Your task to perform on an android device: refresh tabs in the chrome app Image 0: 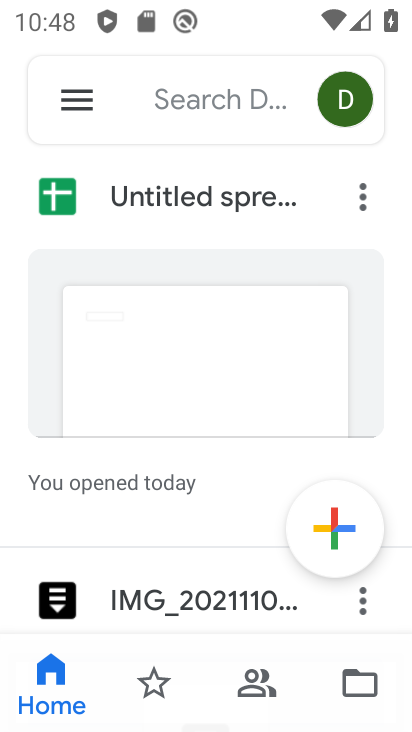
Step 0: press home button
Your task to perform on an android device: refresh tabs in the chrome app Image 1: 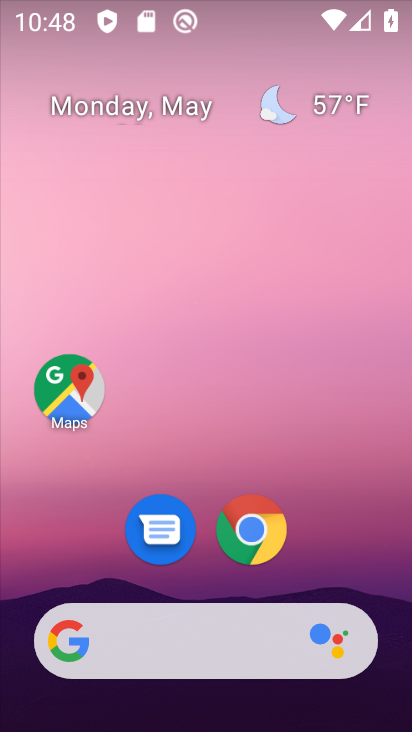
Step 1: click (260, 530)
Your task to perform on an android device: refresh tabs in the chrome app Image 2: 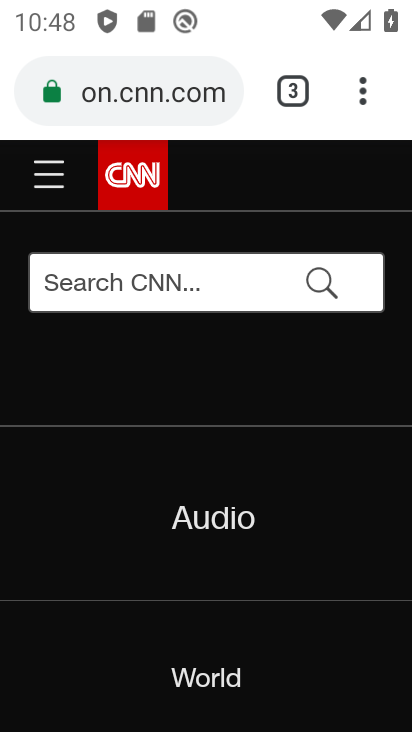
Step 2: click (360, 96)
Your task to perform on an android device: refresh tabs in the chrome app Image 3: 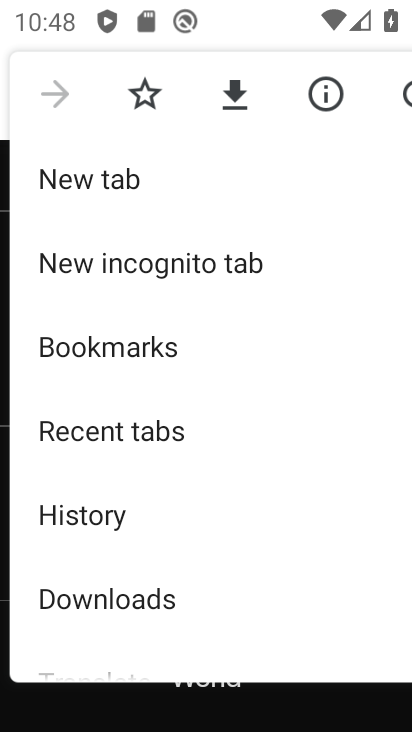
Step 3: click (405, 95)
Your task to perform on an android device: refresh tabs in the chrome app Image 4: 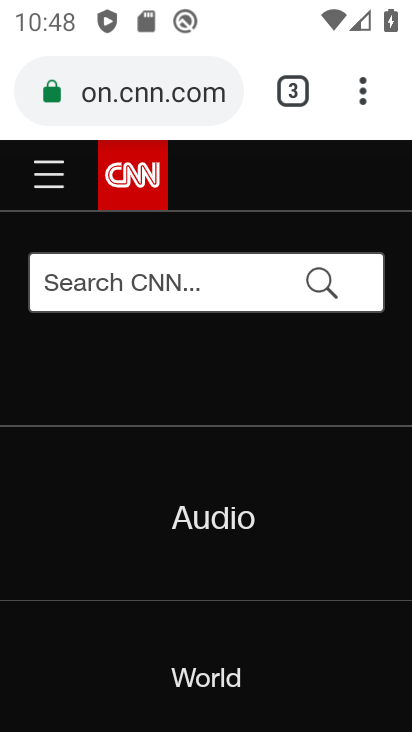
Step 4: task complete